Your task to perform on an android device: Open calendar and show me the fourth week of next month Image 0: 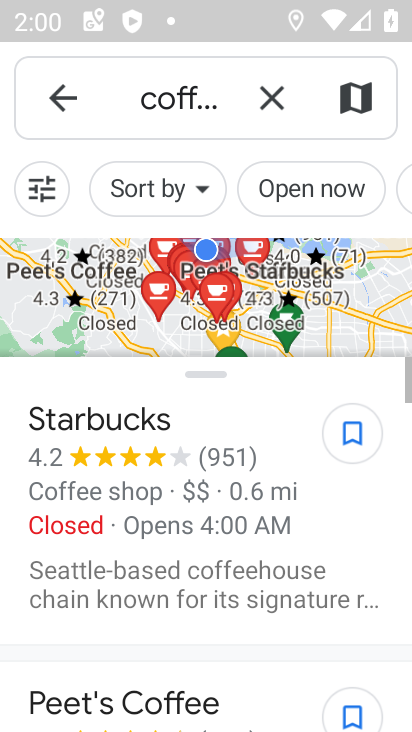
Step 0: press home button
Your task to perform on an android device: Open calendar and show me the fourth week of next month Image 1: 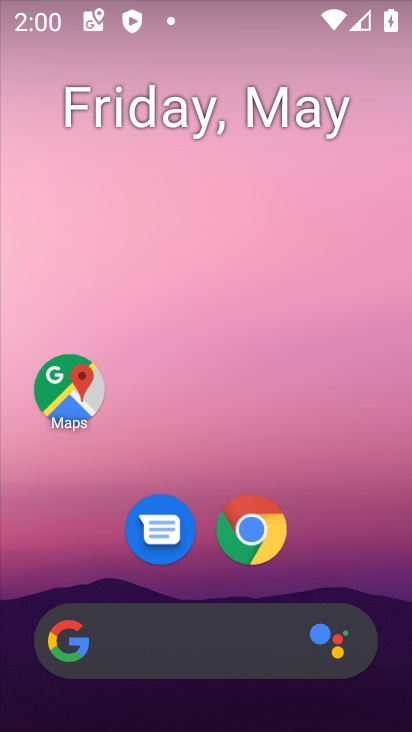
Step 1: click (386, 481)
Your task to perform on an android device: Open calendar and show me the fourth week of next month Image 2: 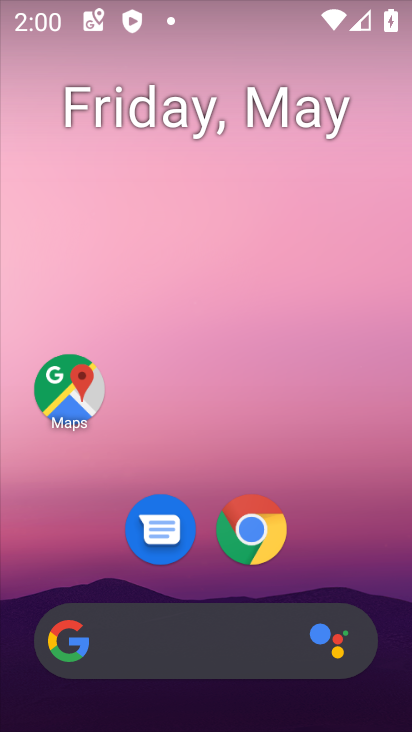
Step 2: drag from (386, 481) to (256, 118)
Your task to perform on an android device: Open calendar and show me the fourth week of next month Image 3: 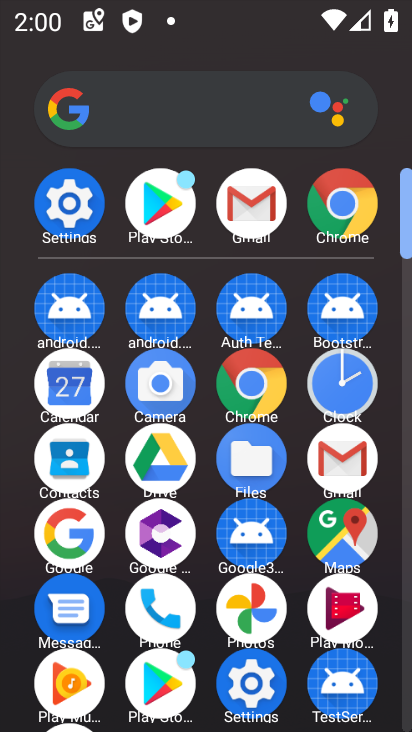
Step 3: click (83, 397)
Your task to perform on an android device: Open calendar and show me the fourth week of next month Image 4: 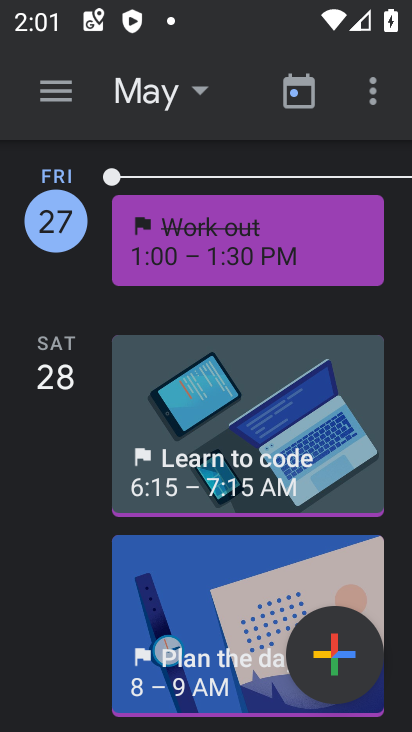
Step 4: task complete